Your task to perform on an android device: Open Youtube and go to "Your channel" Image 0: 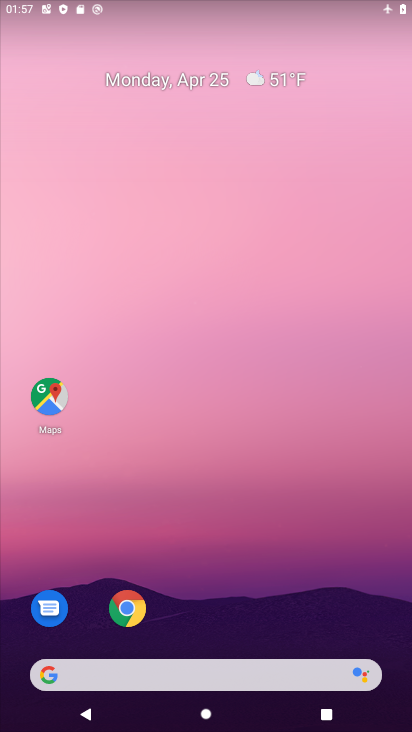
Step 0: drag from (207, 529) to (258, 130)
Your task to perform on an android device: Open Youtube and go to "Your channel" Image 1: 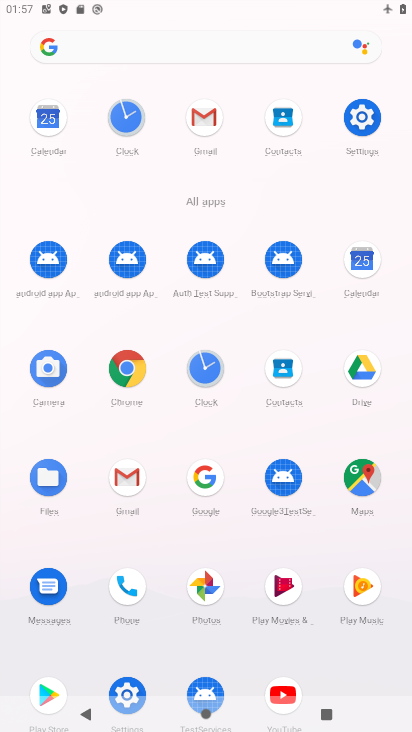
Step 1: click (280, 686)
Your task to perform on an android device: Open Youtube and go to "Your channel" Image 2: 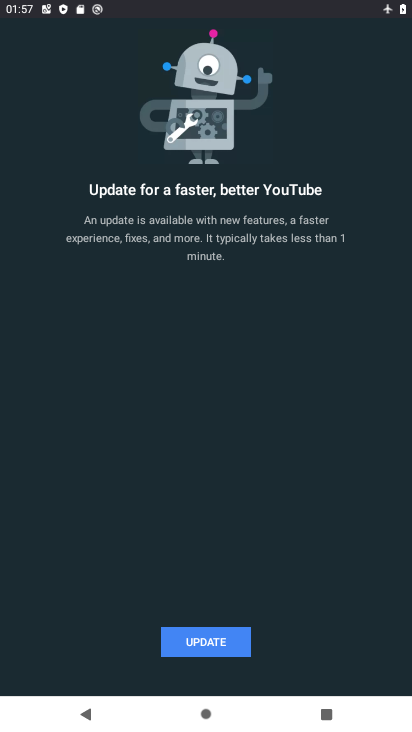
Step 2: click (227, 639)
Your task to perform on an android device: Open Youtube and go to "Your channel" Image 3: 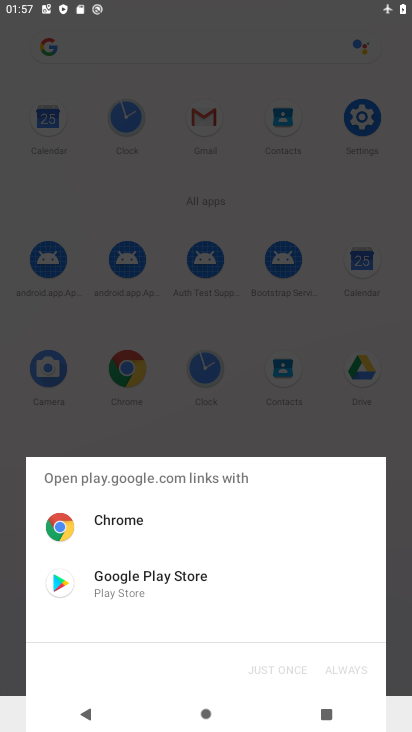
Step 3: click (160, 583)
Your task to perform on an android device: Open Youtube and go to "Your channel" Image 4: 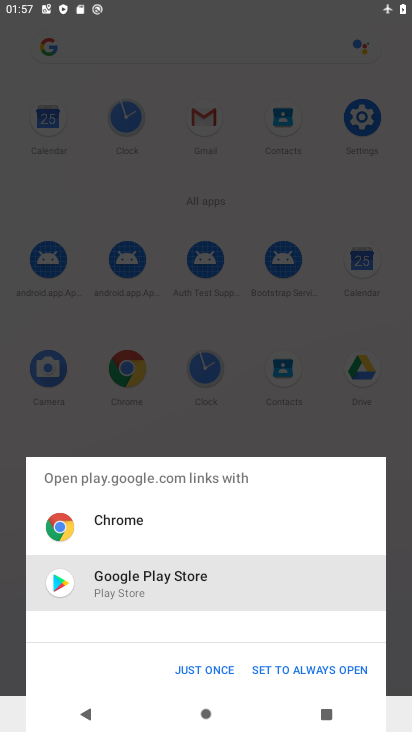
Step 4: click (220, 666)
Your task to perform on an android device: Open Youtube and go to "Your channel" Image 5: 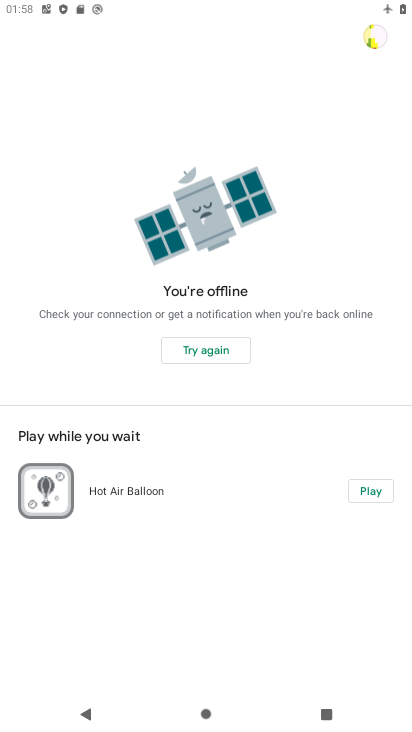
Step 5: task complete